Your task to perform on an android device: add a contact Image 0: 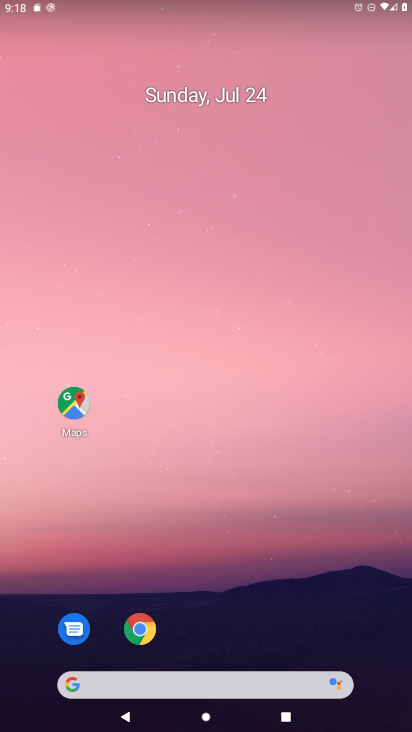
Step 0: drag from (329, 617) to (140, 36)
Your task to perform on an android device: add a contact Image 1: 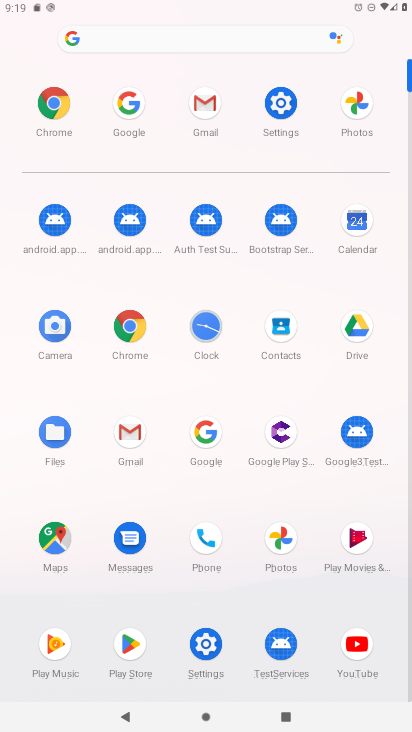
Step 1: click (283, 349)
Your task to perform on an android device: add a contact Image 2: 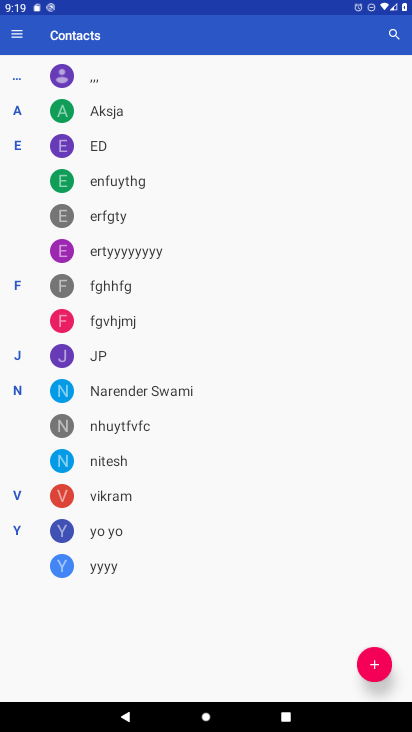
Step 2: click (364, 666)
Your task to perform on an android device: add a contact Image 3: 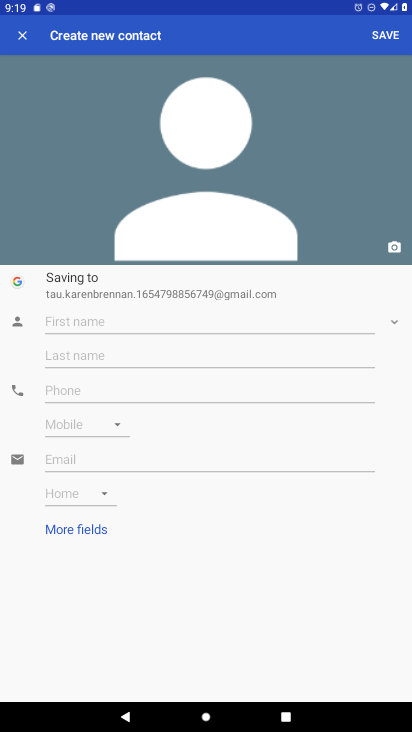
Step 3: click (85, 330)
Your task to perform on an android device: add a contact Image 4: 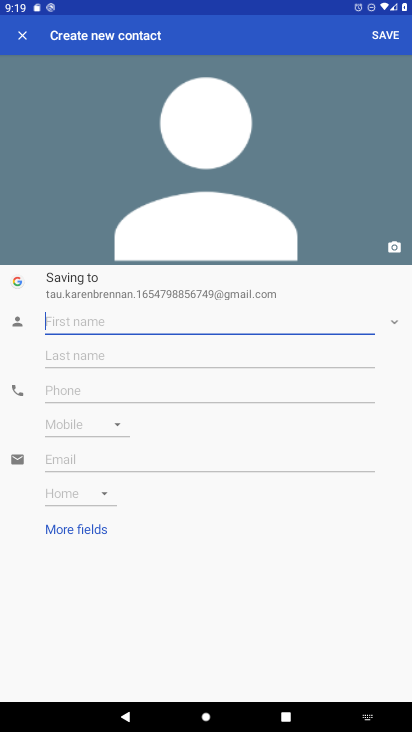
Step 4: type ""
Your task to perform on an android device: add a contact Image 5: 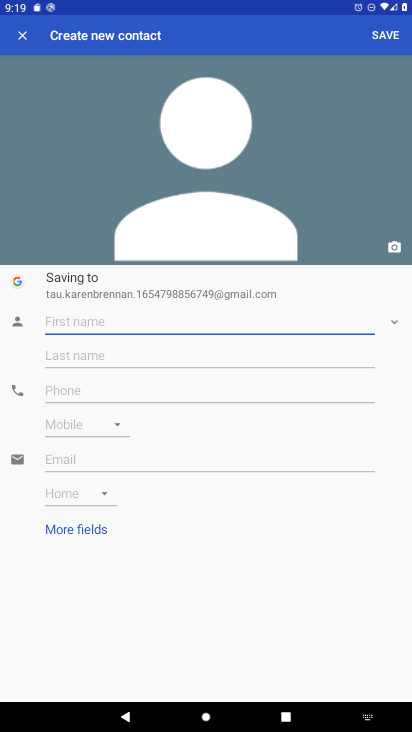
Step 5: type "vishu"
Your task to perform on an android device: add a contact Image 6: 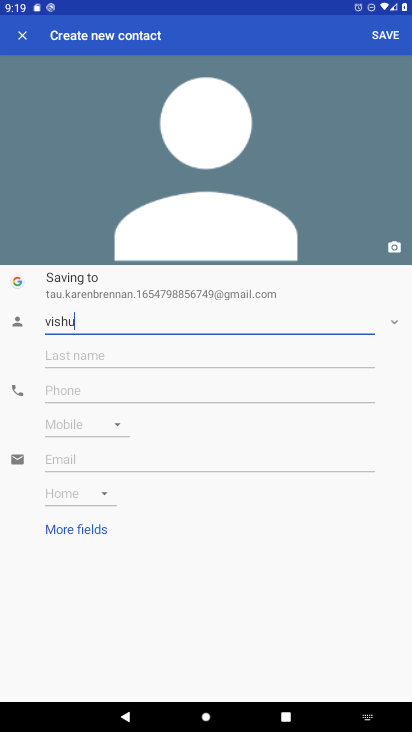
Step 6: click (383, 21)
Your task to perform on an android device: add a contact Image 7: 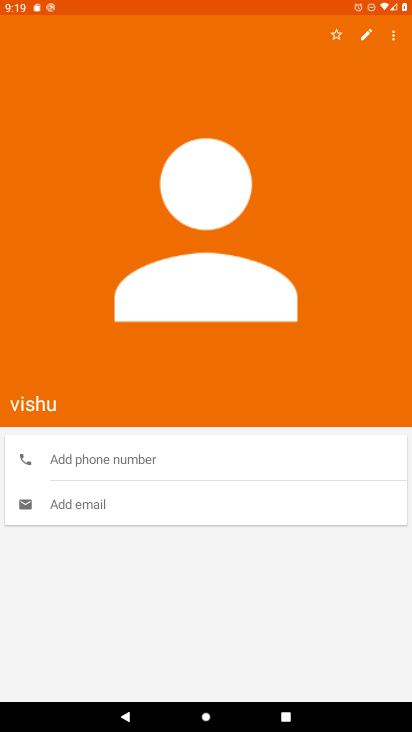
Step 7: task complete